Your task to perform on an android device: toggle data saver in the chrome app Image 0: 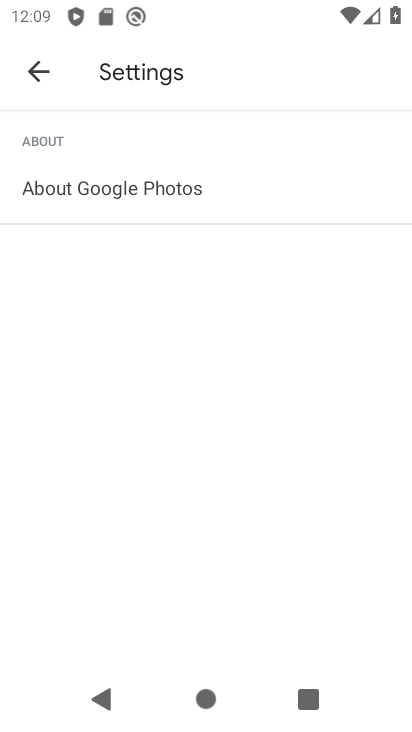
Step 0: press home button
Your task to perform on an android device: toggle data saver in the chrome app Image 1: 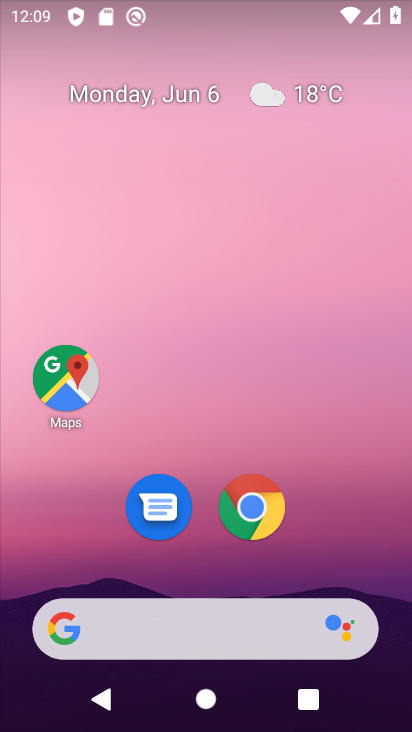
Step 1: click (258, 499)
Your task to perform on an android device: toggle data saver in the chrome app Image 2: 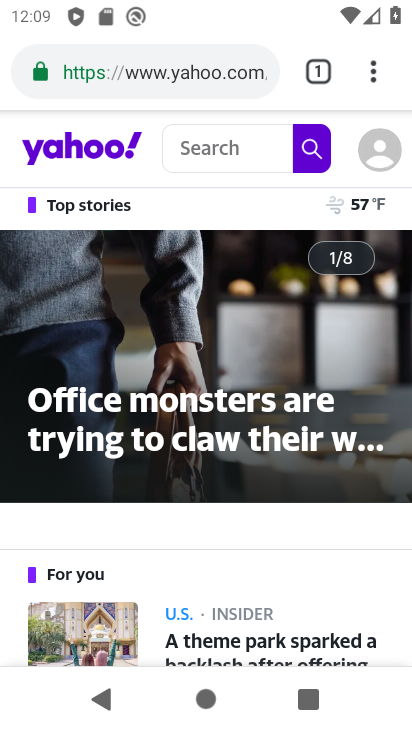
Step 2: click (371, 61)
Your task to perform on an android device: toggle data saver in the chrome app Image 3: 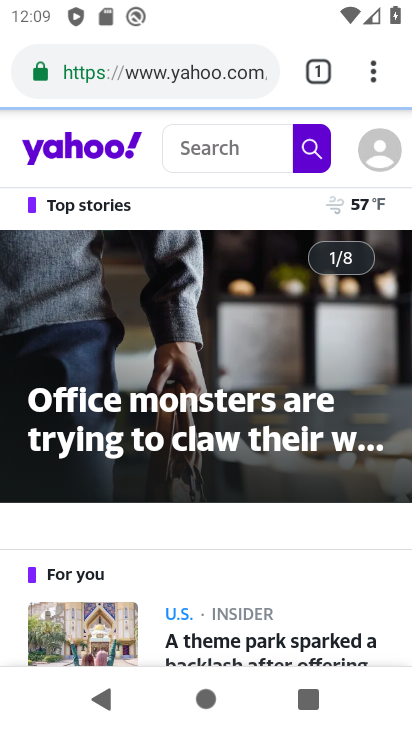
Step 3: click (372, 76)
Your task to perform on an android device: toggle data saver in the chrome app Image 4: 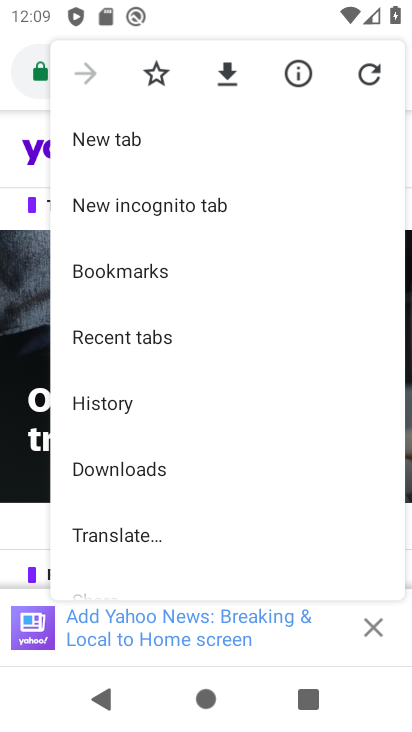
Step 4: drag from (161, 524) to (210, 292)
Your task to perform on an android device: toggle data saver in the chrome app Image 5: 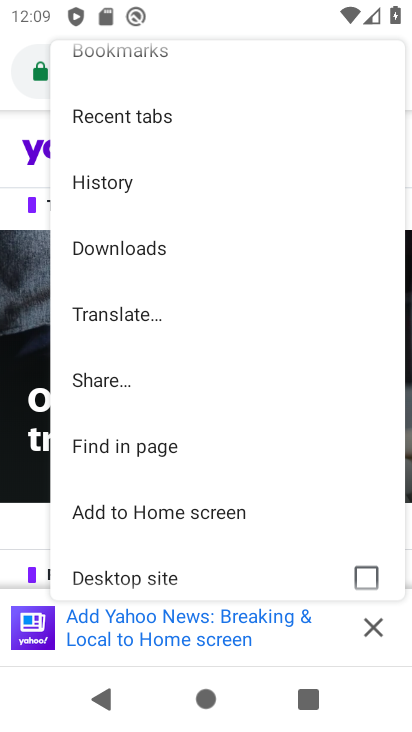
Step 5: drag from (178, 536) to (188, 313)
Your task to perform on an android device: toggle data saver in the chrome app Image 6: 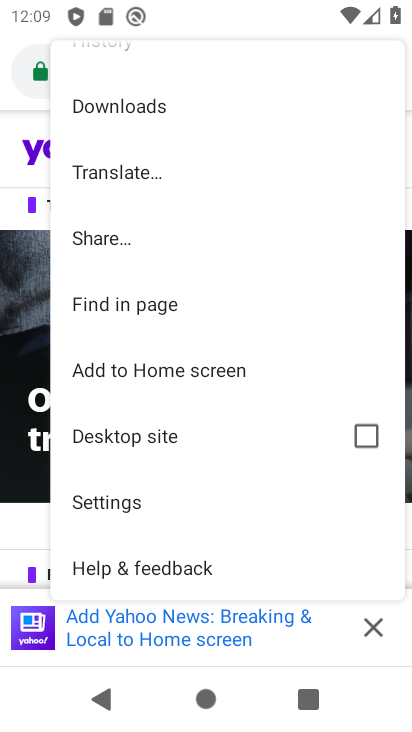
Step 6: click (111, 504)
Your task to perform on an android device: toggle data saver in the chrome app Image 7: 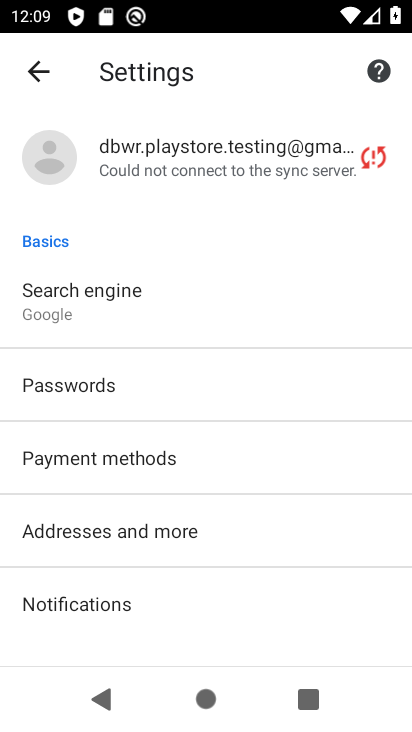
Step 7: drag from (145, 584) to (182, 290)
Your task to perform on an android device: toggle data saver in the chrome app Image 8: 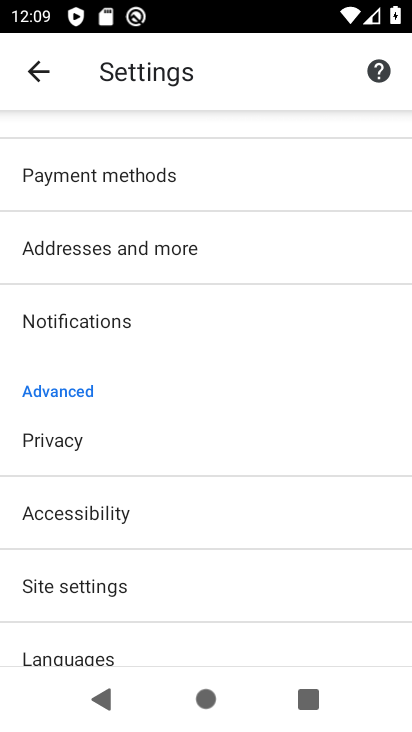
Step 8: drag from (127, 588) to (136, 354)
Your task to perform on an android device: toggle data saver in the chrome app Image 9: 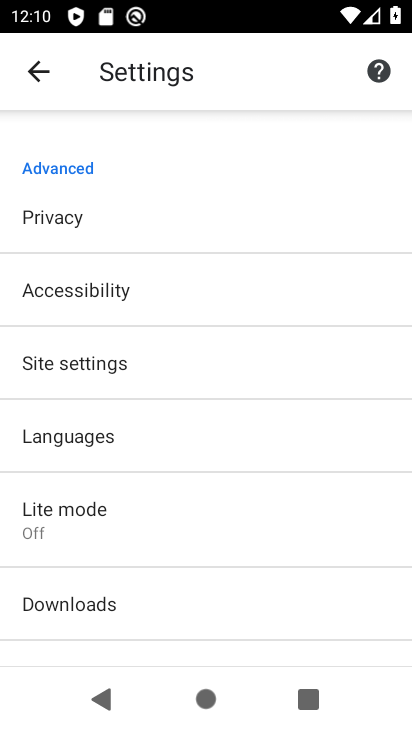
Step 9: click (76, 526)
Your task to perform on an android device: toggle data saver in the chrome app Image 10: 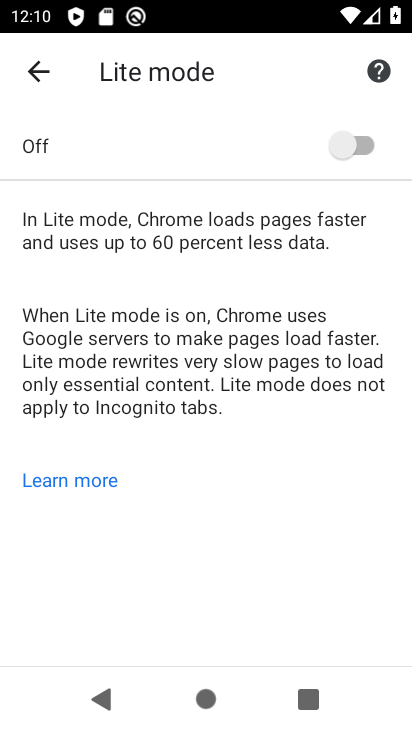
Step 10: click (347, 142)
Your task to perform on an android device: toggle data saver in the chrome app Image 11: 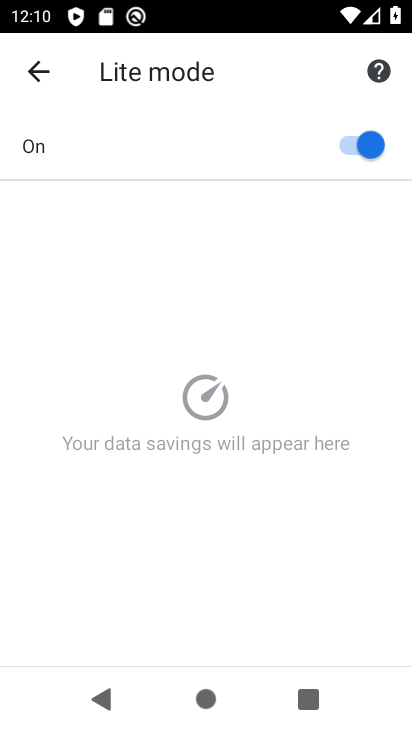
Step 11: task complete